Your task to perform on an android device: turn on improve location accuracy Image 0: 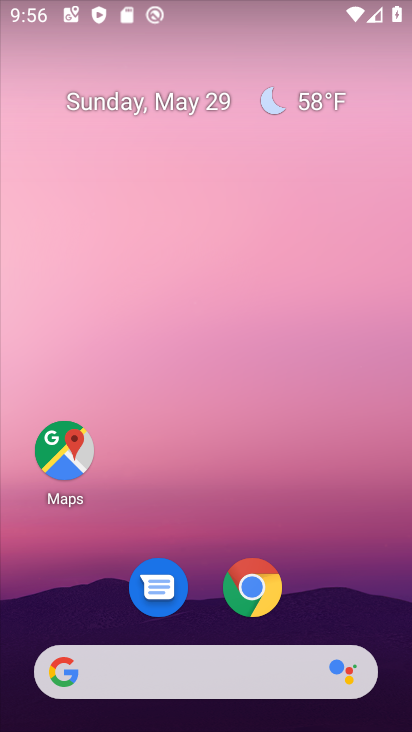
Step 0: drag from (371, 581) to (273, 185)
Your task to perform on an android device: turn on improve location accuracy Image 1: 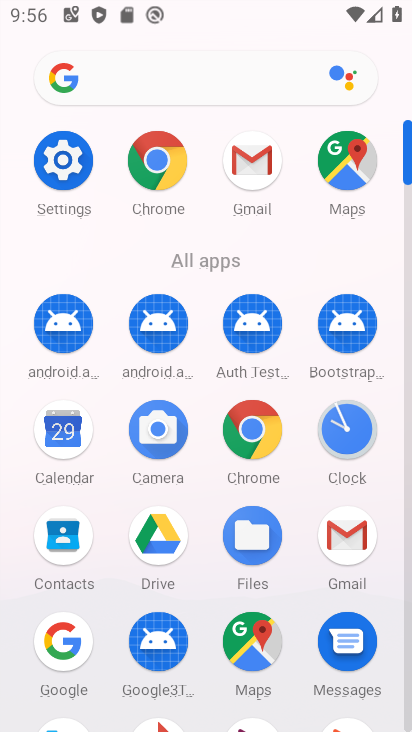
Step 1: click (77, 179)
Your task to perform on an android device: turn on improve location accuracy Image 2: 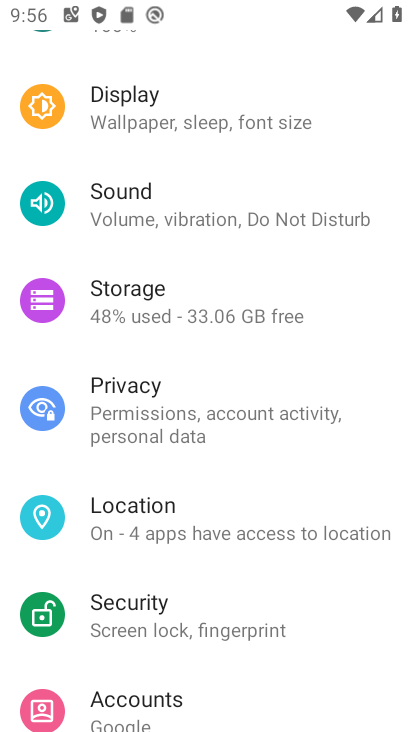
Step 2: click (242, 510)
Your task to perform on an android device: turn on improve location accuracy Image 3: 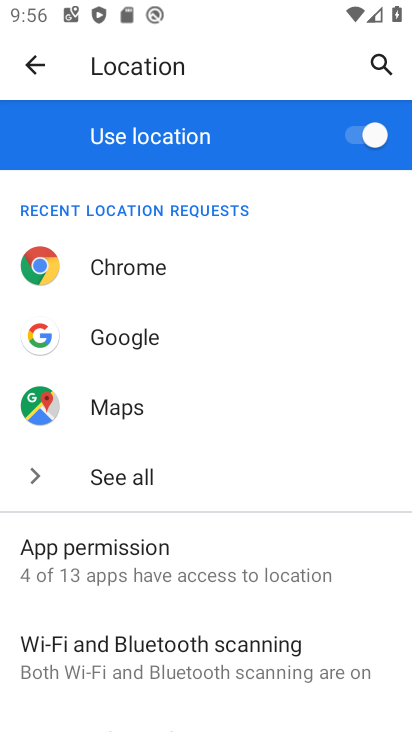
Step 3: drag from (340, 585) to (250, 173)
Your task to perform on an android device: turn on improve location accuracy Image 4: 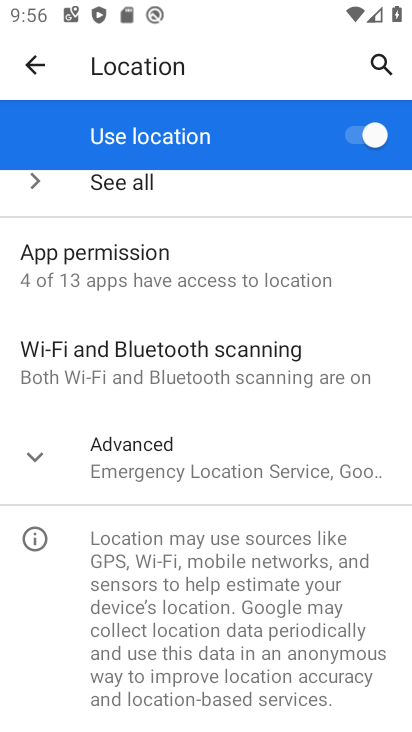
Step 4: click (251, 471)
Your task to perform on an android device: turn on improve location accuracy Image 5: 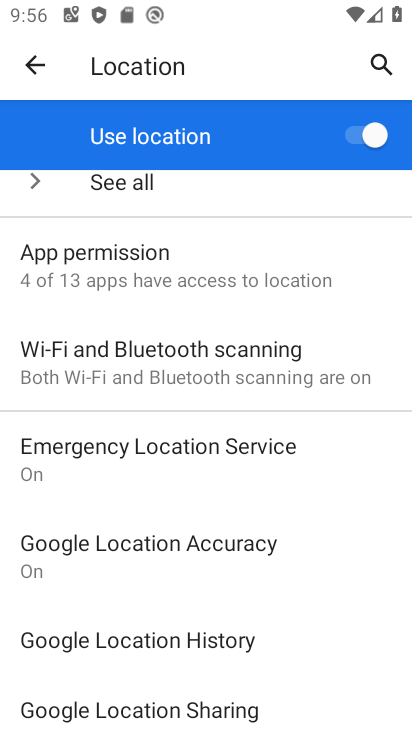
Step 5: click (254, 582)
Your task to perform on an android device: turn on improve location accuracy Image 6: 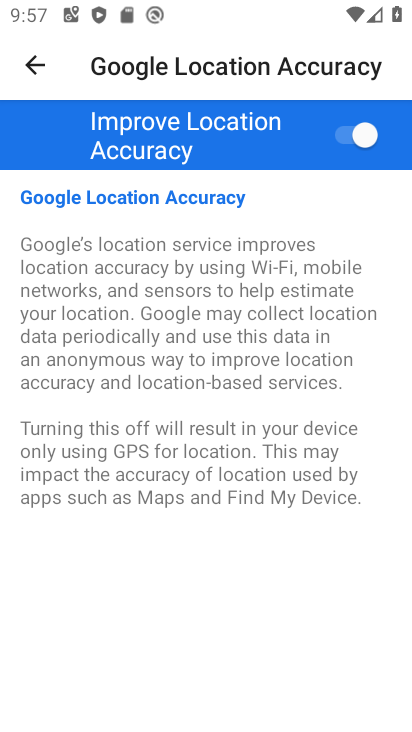
Step 6: task complete